Your task to perform on an android device: Clear the cart on walmart.com. Add logitech g pro to the cart on walmart.com Image 0: 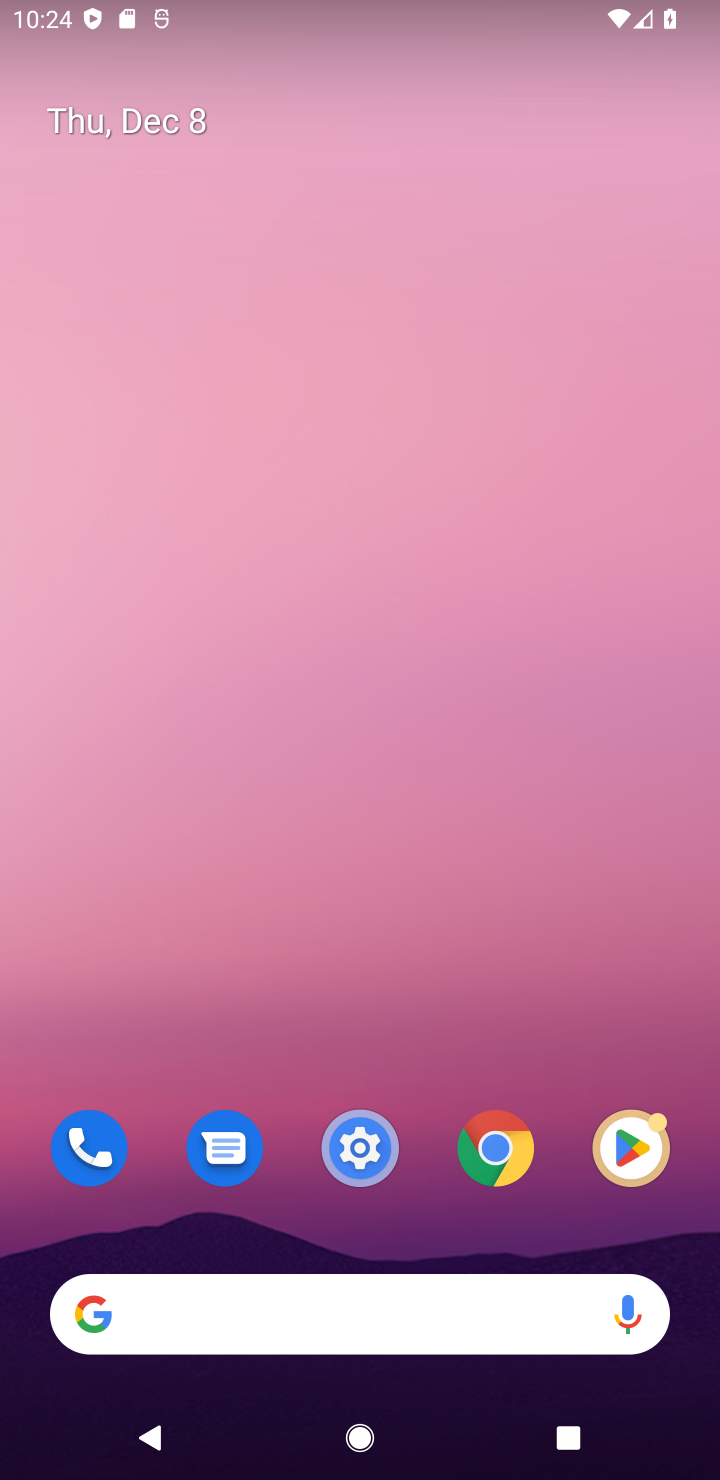
Step 0: click (317, 1293)
Your task to perform on an android device: Clear the cart on walmart.com. Add logitech g pro to the cart on walmart.com Image 1: 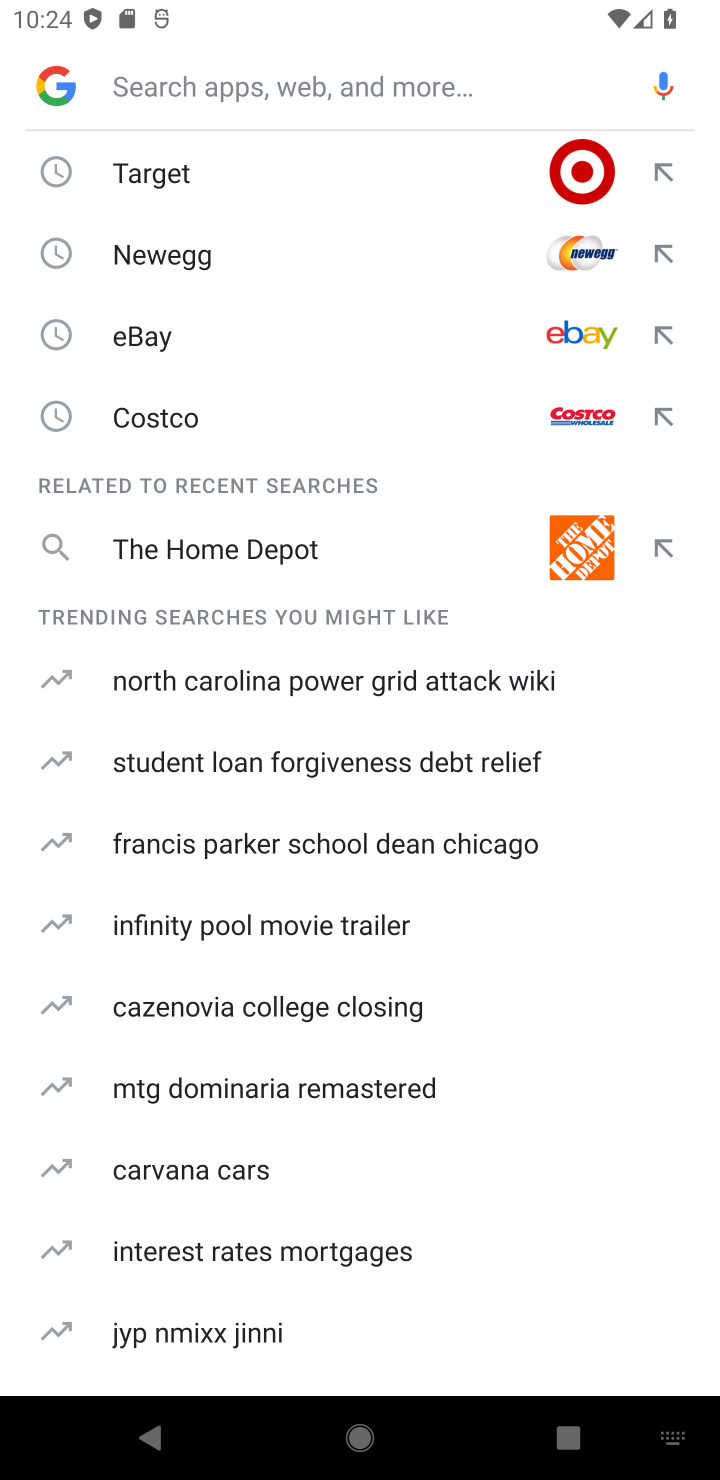
Step 1: type "walmart"
Your task to perform on an android device: Clear the cart on walmart.com. Add logitech g pro to the cart on walmart.com Image 2: 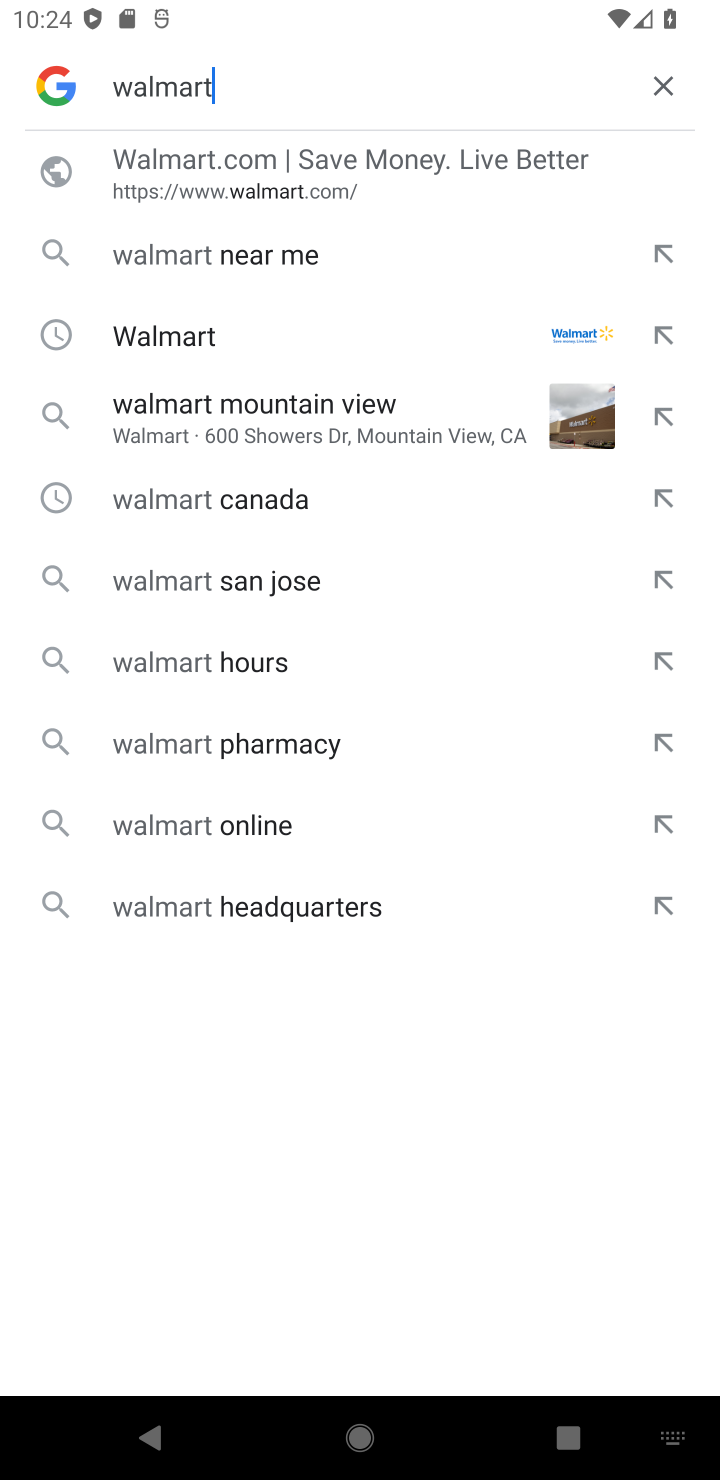
Step 2: click (161, 331)
Your task to perform on an android device: Clear the cart on walmart.com. Add logitech g pro to the cart on walmart.com Image 3: 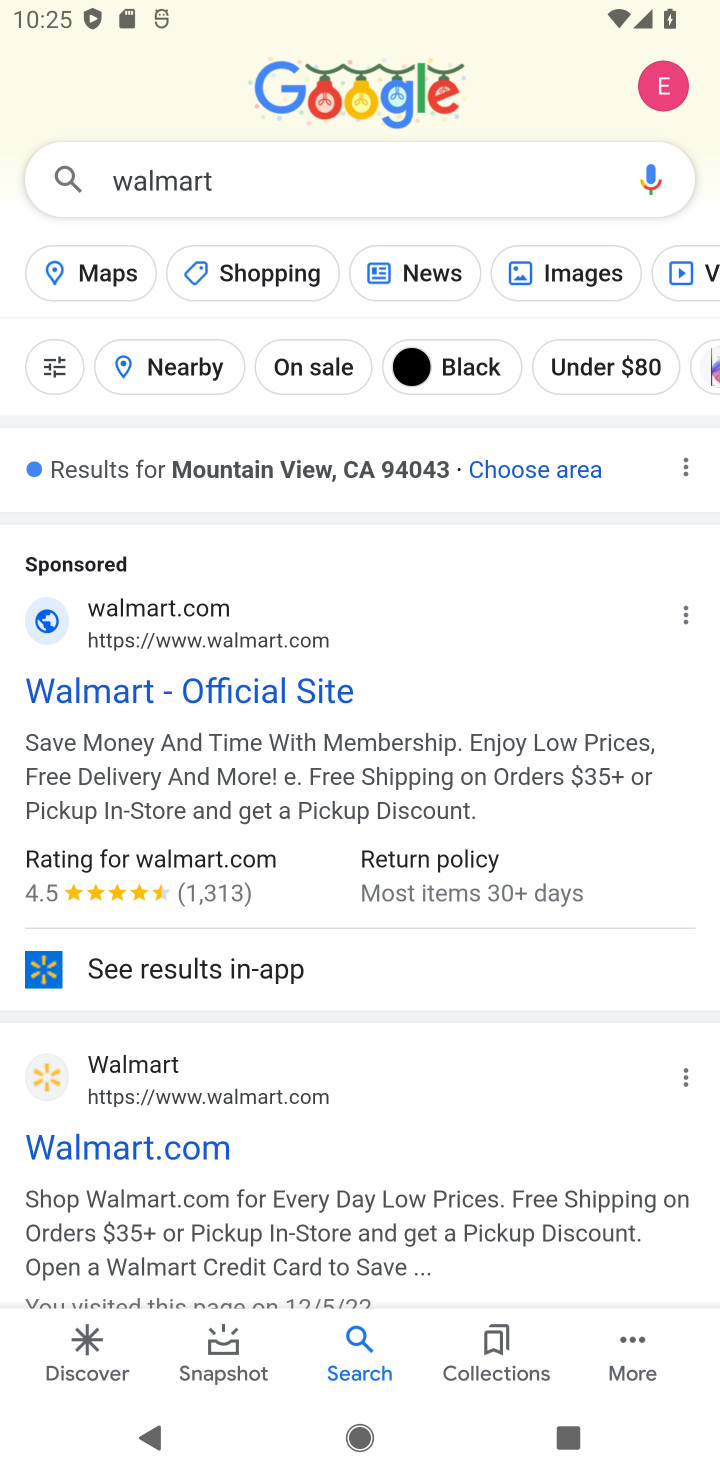
Step 3: click (148, 608)
Your task to perform on an android device: Clear the cart on walmart.com. Add logitech g pro to the cart on walmart.com Image 4: 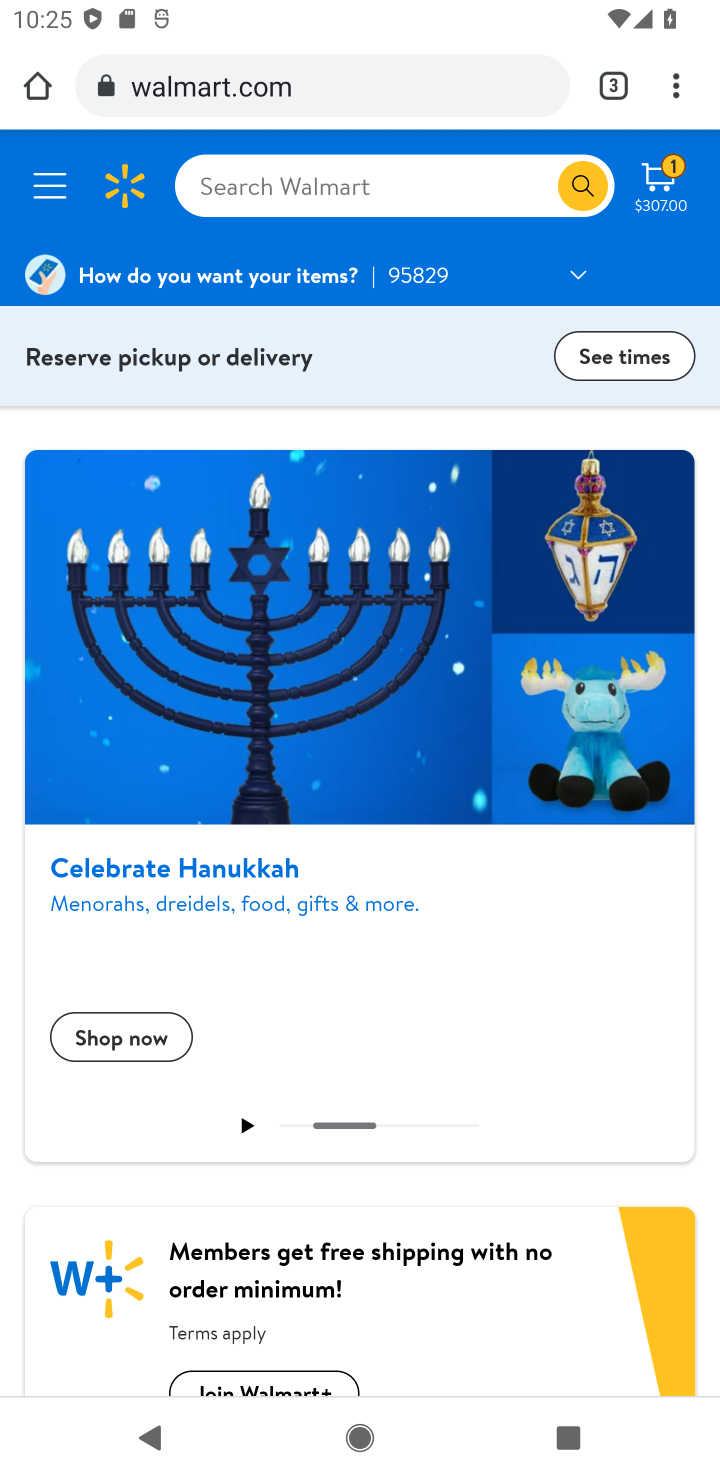
Step 4: click (667, 172)
Your task to perform on an android device: Clear the cart on walmart.com. Add logitech g pro to the cart on walmart.com Image 5: 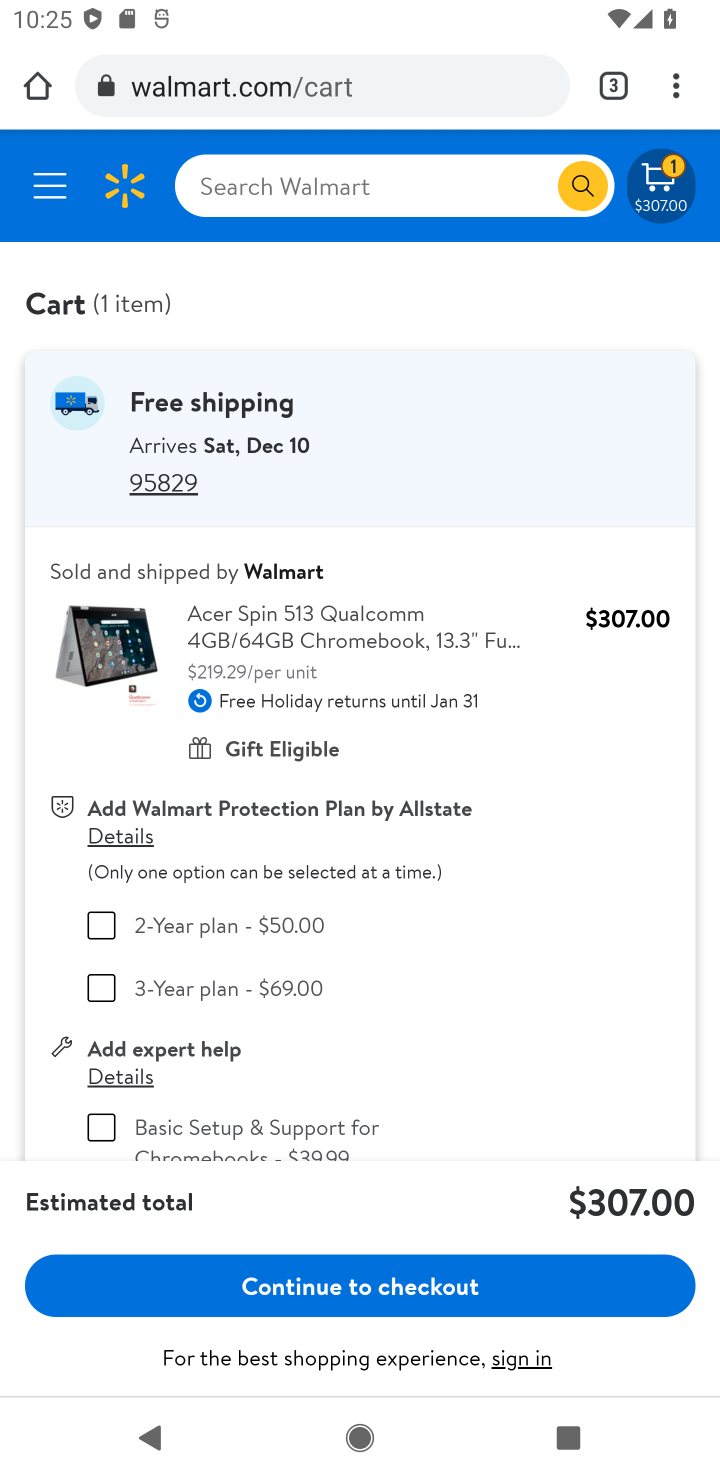
Step 5: drag from (446, 896) to (447, 676)
Your task to perform on an android device: Clear the cart on walmart.com. Add logitech g pro to the cart on walmart.com Image 6: 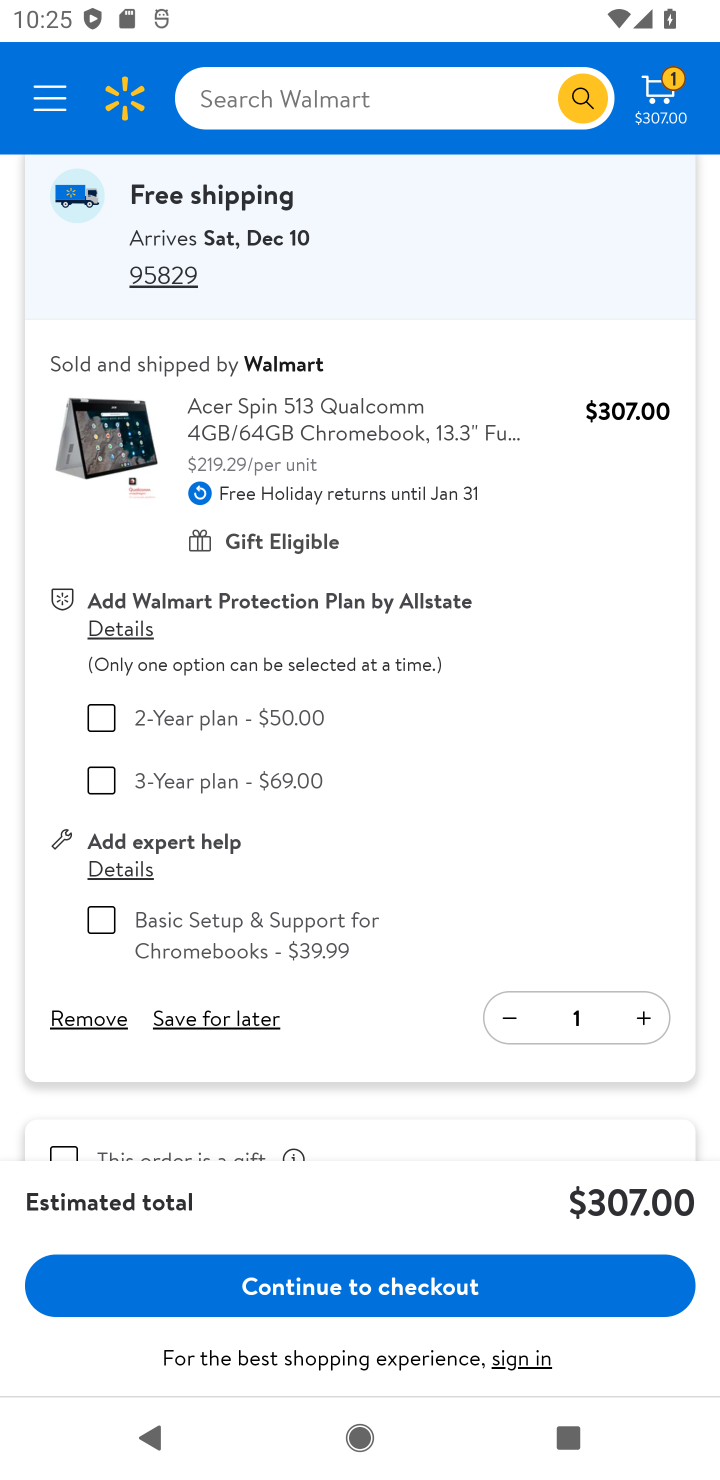
Step 6: click (81, 1015)
Your task to perform on an android device: Clear the cart on walmart.com. Add logitech g pro to the cart on walmart.com Image 7: 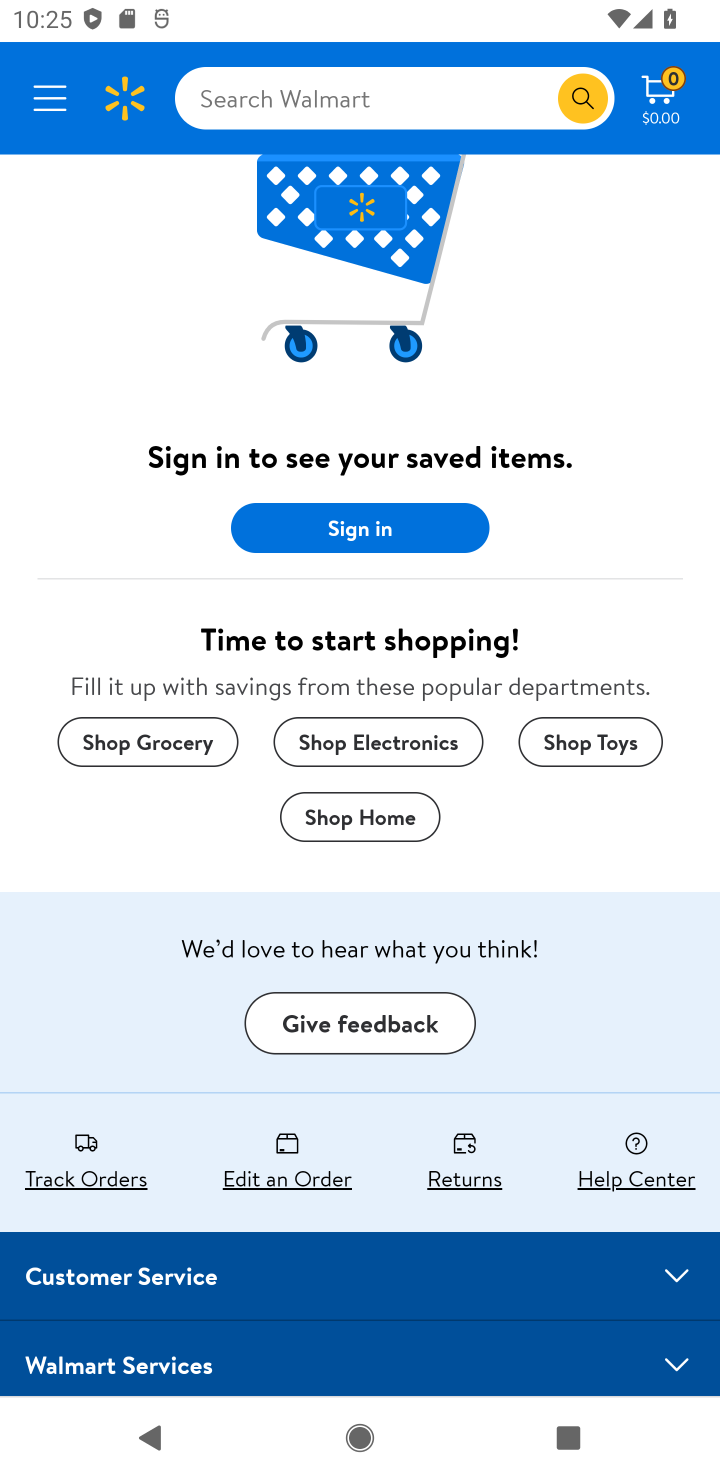
Step 7: click (286, 90)
Your task to perform on an android device: Clear the cart on walmart.com. Add logitech g pro to the cart on walmart.com Image 8: 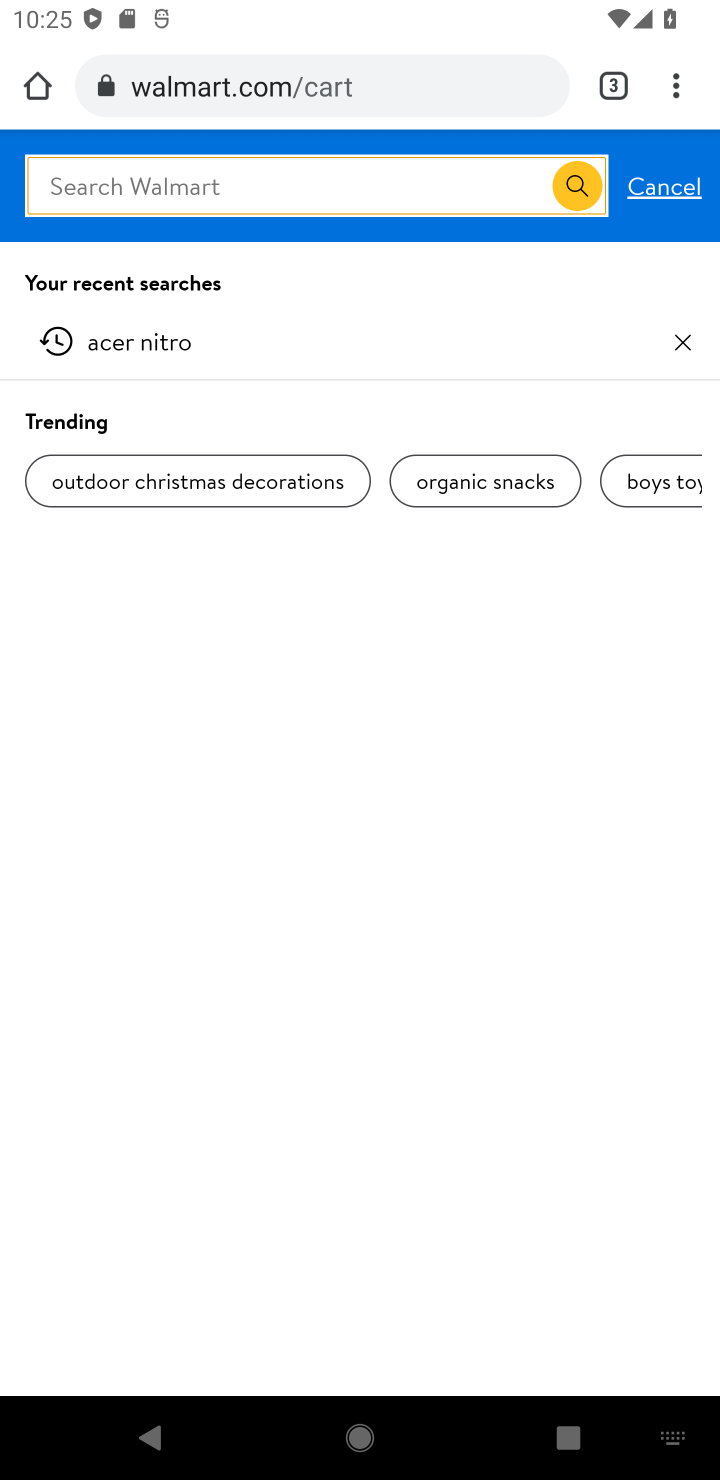
Step 8: type "logitech g pro "
Your task to perform on an android device: Clear the cart on walmart.com. Add logitech g pro to the cart on walmart.com Image 9: 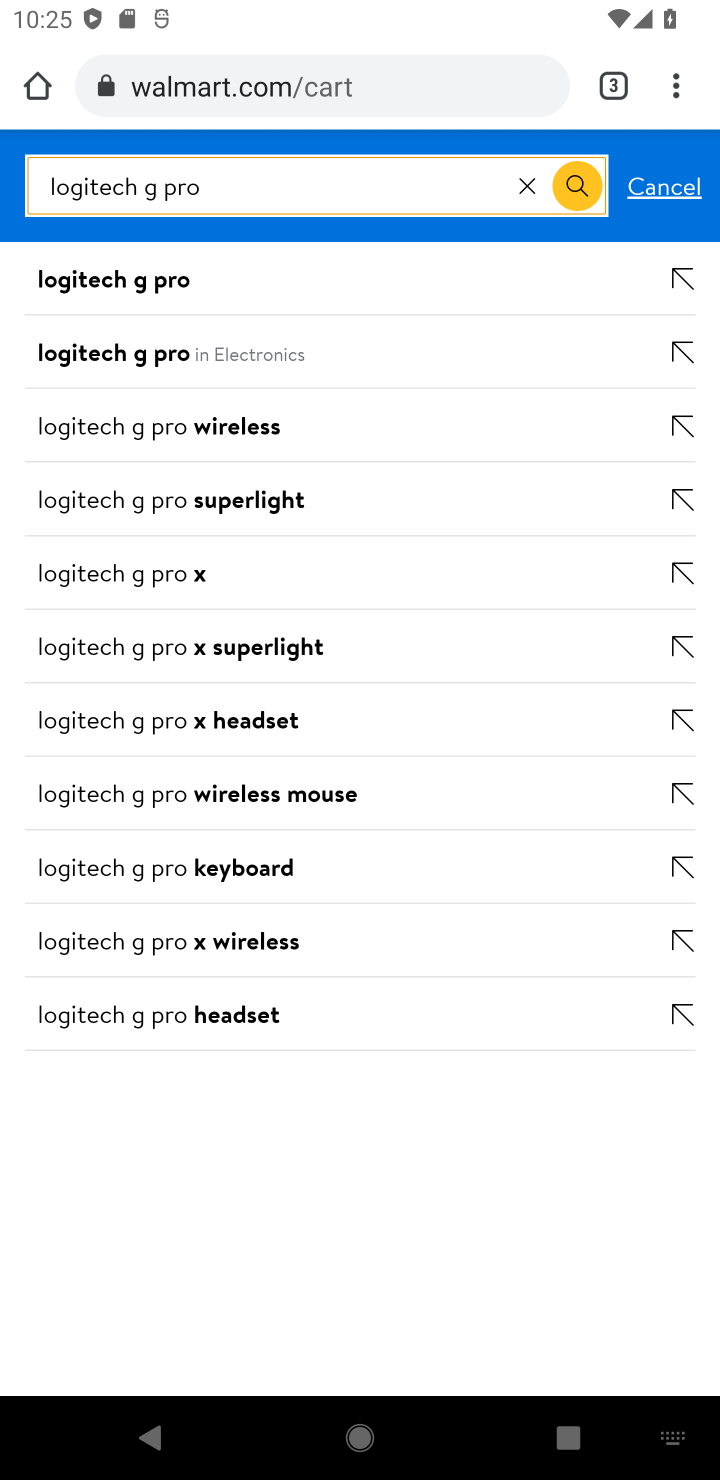
Step 9: click (164, 286)
Your task to perform on an android device: Clear the cart on walmart.com. Add logitech g pro to the cart on walmart.com Image 10: 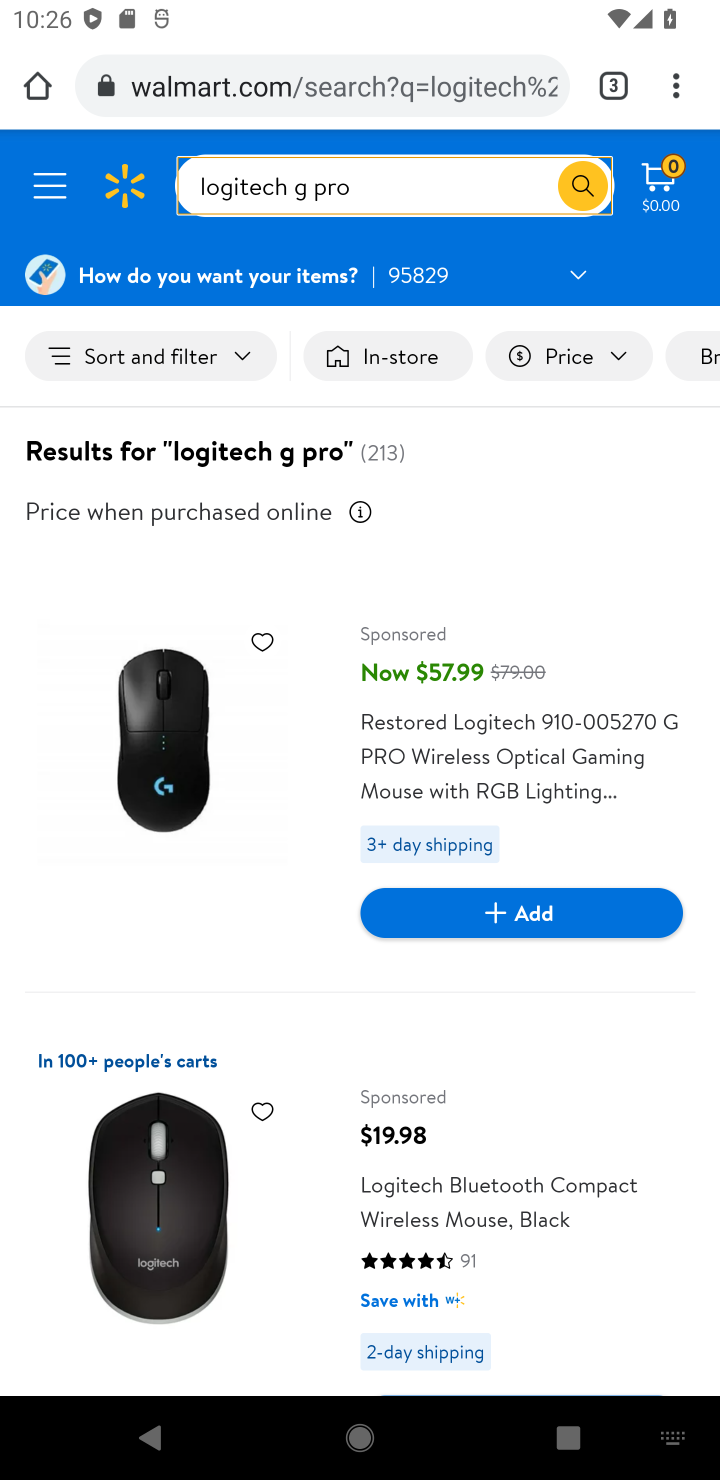
Step 10: click (528, 927)
Your task to perform on an android device: Clear the cart on walmart.com. Add logitech g pro to the cart on walmart.com Image 11: 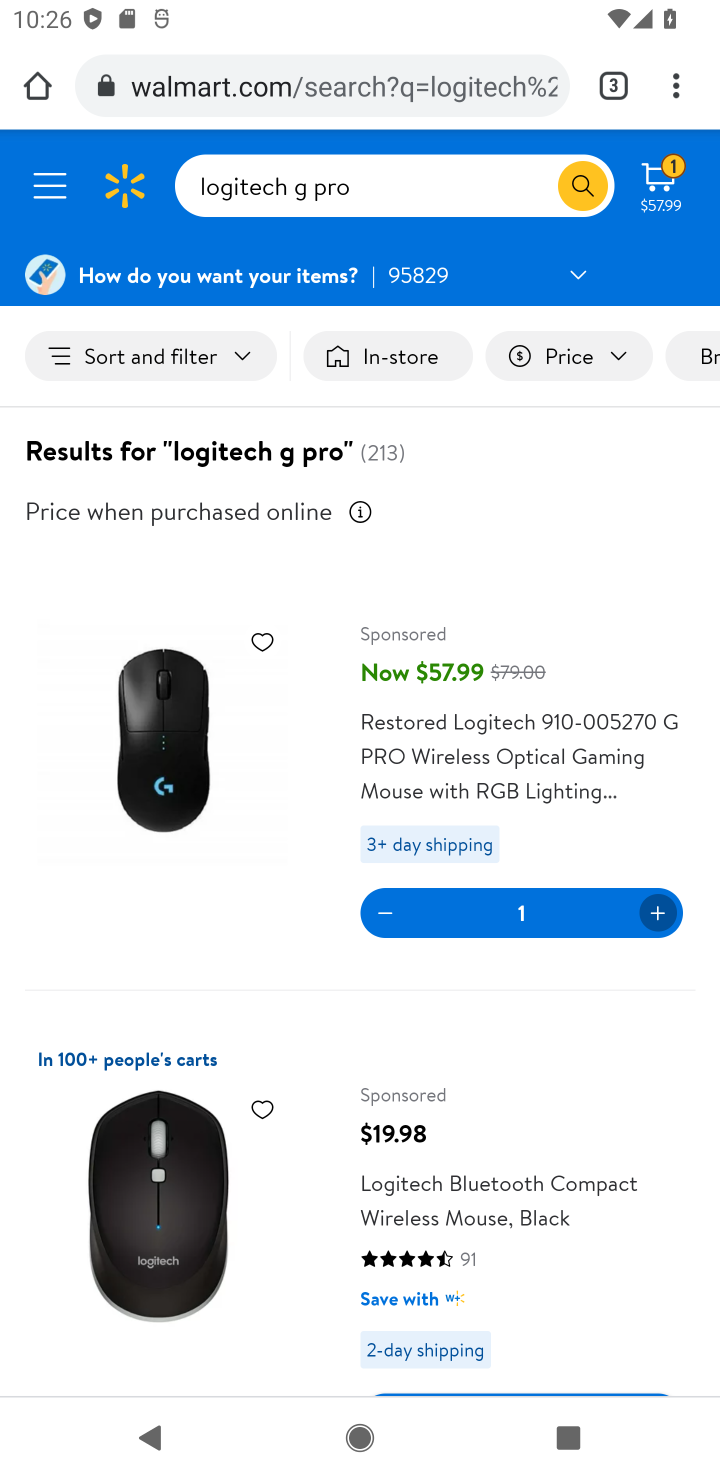
Step 11: task complete